Your task to perform on an android device: Toggle the flashlight Image 0: 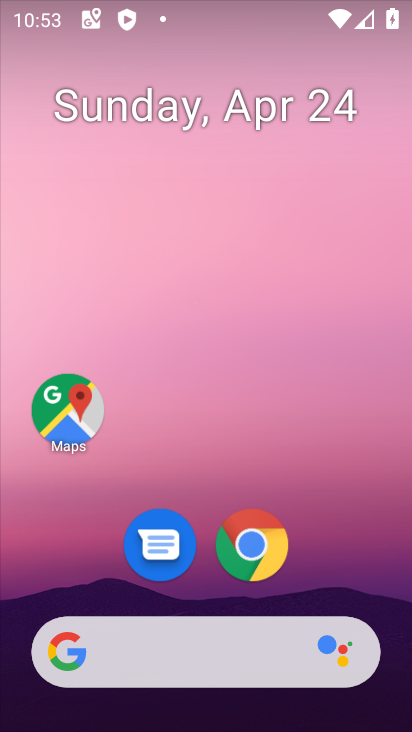
Step 0: press home button
Your task to perform on an android device: Toggle the flashlight Image 1: 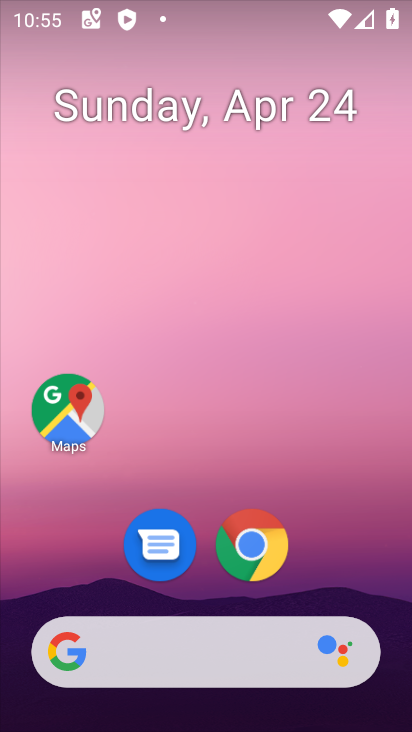
Step 1: drag from (297, 692) to (288, 127)
Your task to perform on an android device: Toggle the flashlight Image 2: 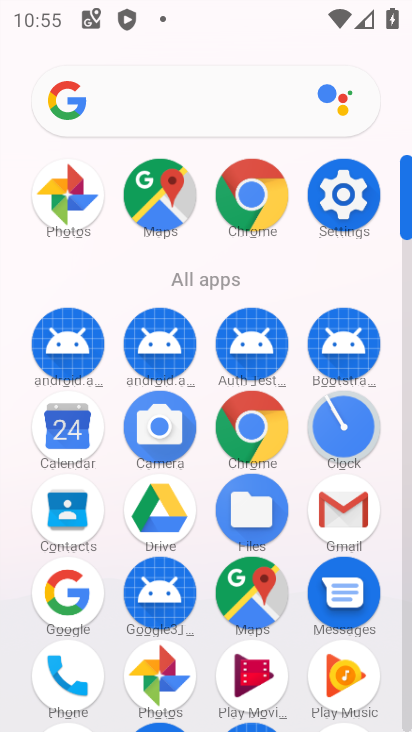
Step 2: click (347, 177)
Your task to perform on an android device: Toggle the flashlight Image 3: 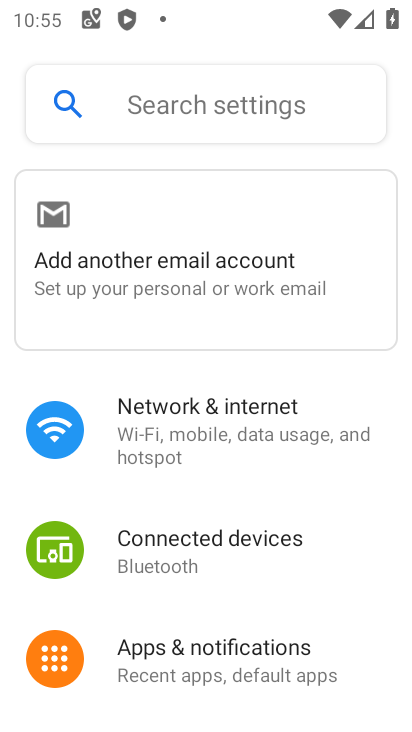
Step 3: click (200, 120)
Your task to perform on an android device: Toggle the flashlight Image 4: 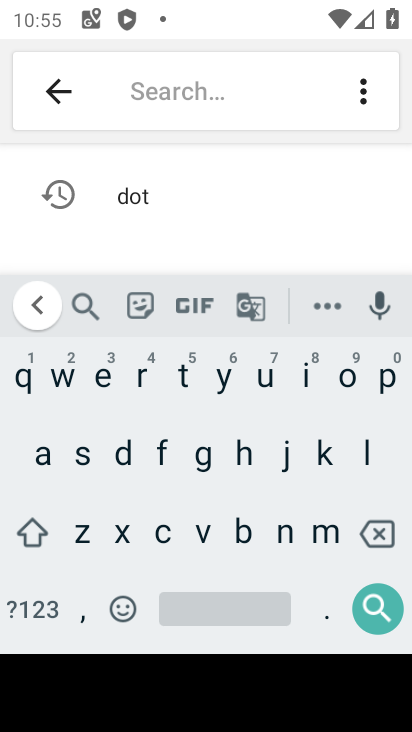
Step 4: click (169, 436)
Your task to perform on an android device: Toggle the flashlight Image 5: 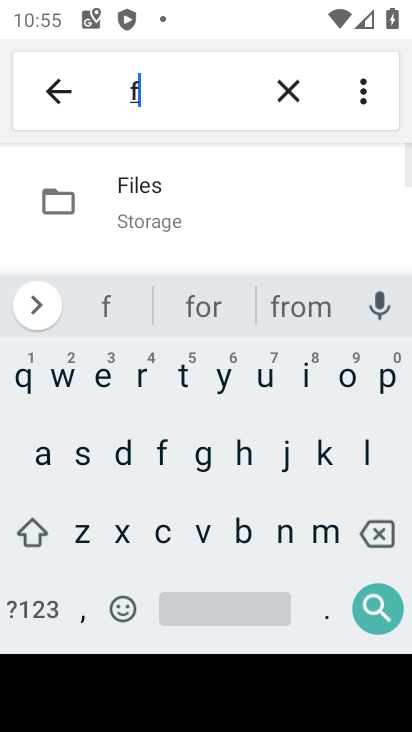
Step 5: click (361, 448)
Your task to perform on an android device: Toggle the flashlight Image 6: 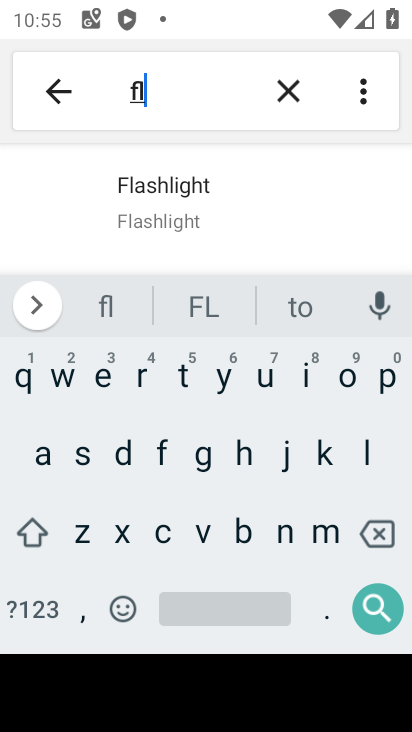
Step 6: click (163, 219)
Your task to perform on an android device: Toggle the flashlight Image 7: 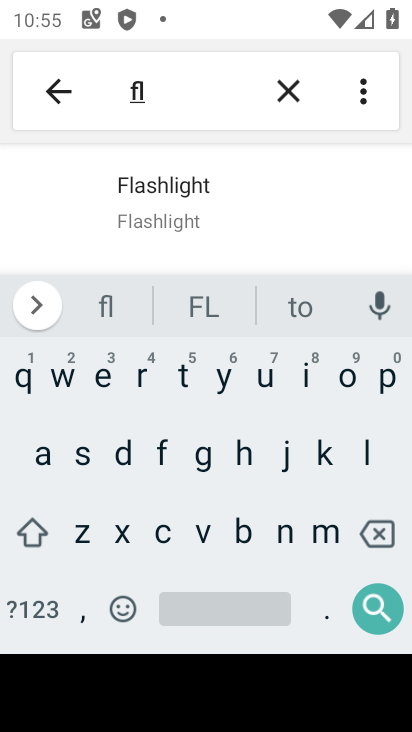
Step 7: task complete